Your task to perform on an android device: Open privacy settings Image 0: 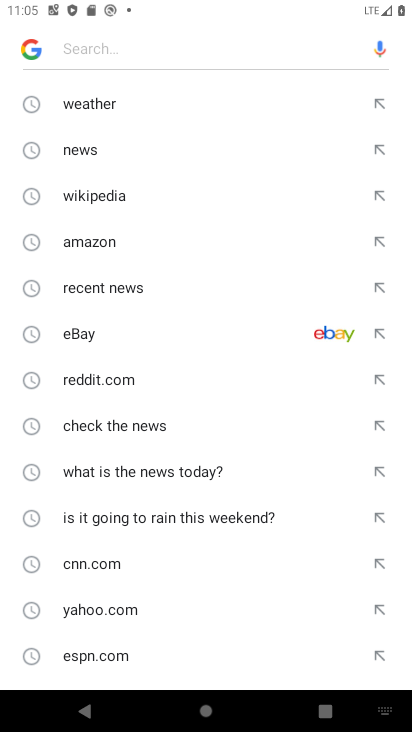
Step 0: press home button
Your task to perform on an android device: Open privacy settings Image 1: 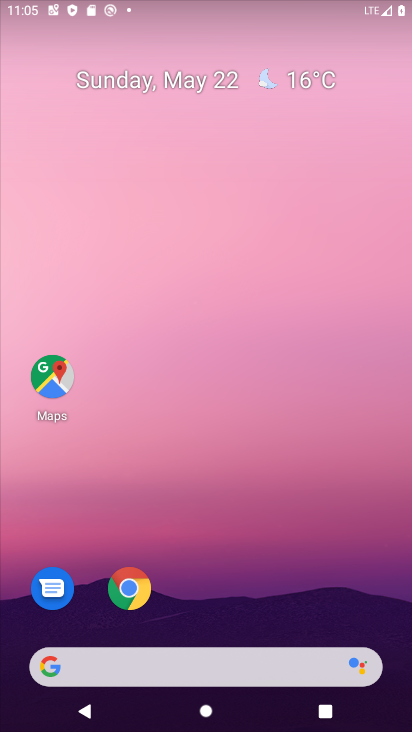
Step 1: drag from (212, 624) to (218, 192)
Your task to perform on an android device: Open privacy settings Image 2: 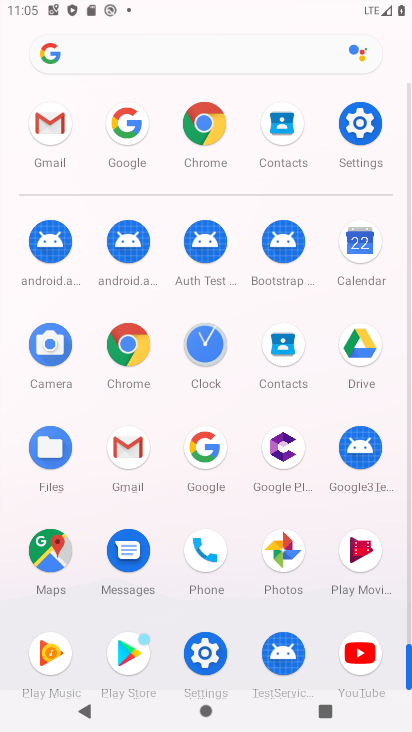
Step 2: click (349, 125)
Your task to perform on an android device: Open privacy settings Image 3: 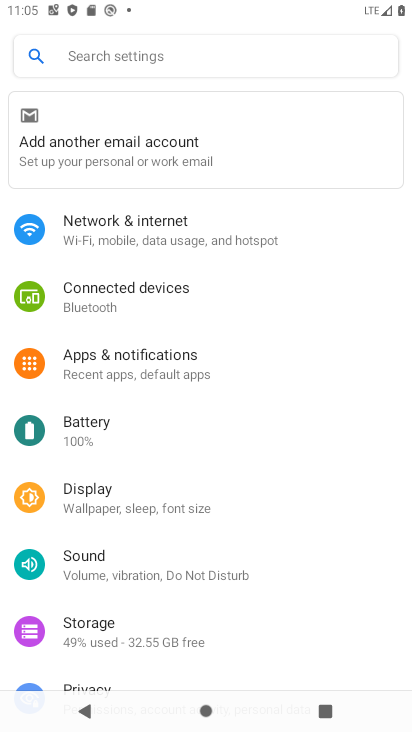
Step 3: drag from (165, 594) to (207, 317)
Your task to perform on an android device: Open privacy settings Image 4: 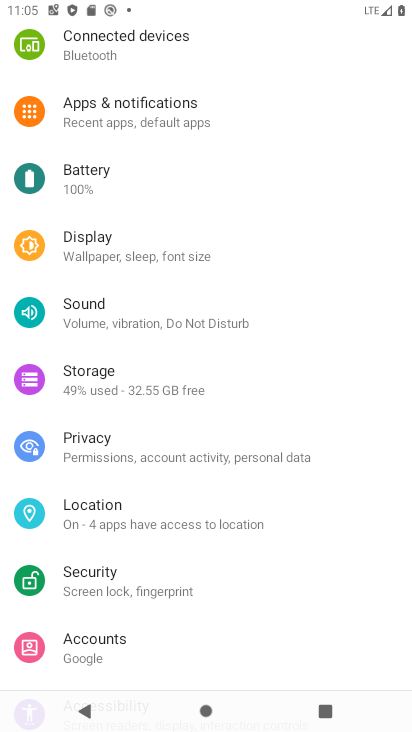
Step 4: drag from (133, 604) to (224, 313)
Your task to perform on an android device: Open privacy settings Image 5: 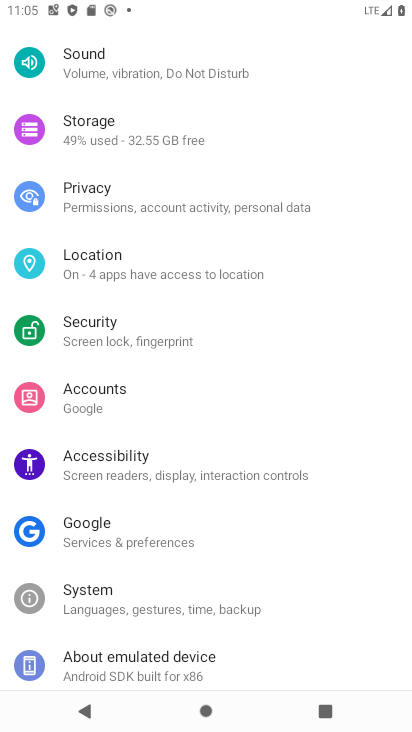
Step 5: drag from (148, 584) to (225, 273)
Your task to perform on an android device: Open privacy settings Image 6: 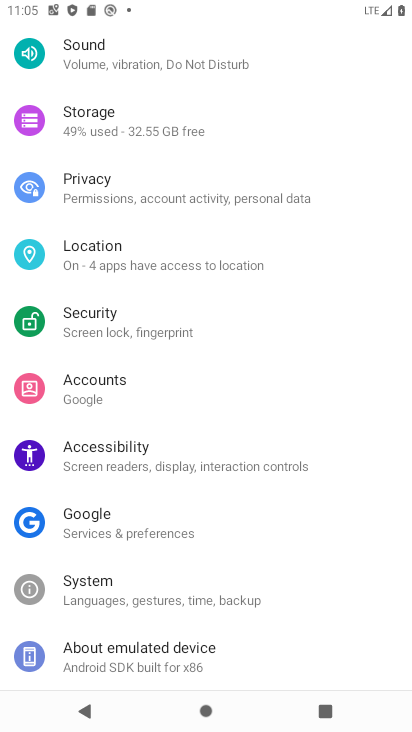
Step 6: click (142, 199)
Your task to perform on an android device: Open privacy settings Image 7: 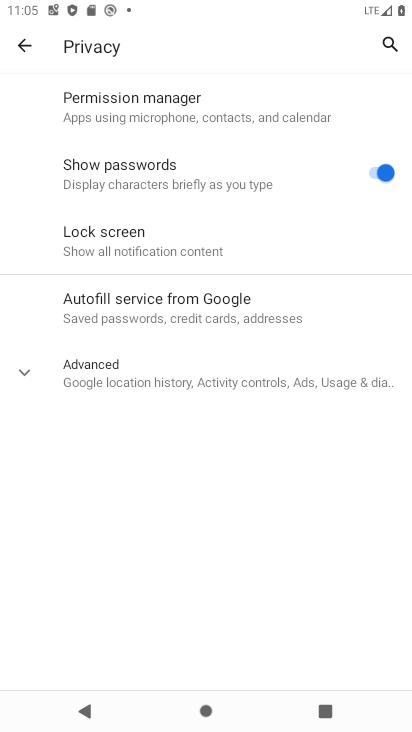
Step 7: task complete